Your task to perform on an android device: Go to Google maps Image 0: 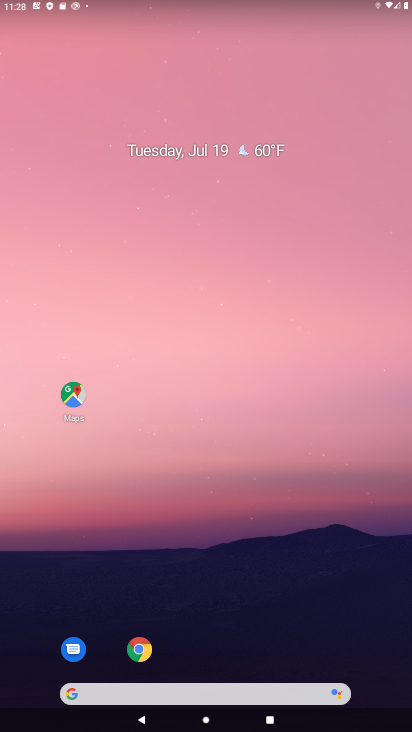
Step 0: click (70, 399)
Your task to perform on an android device: Go to Google maps Image 1: 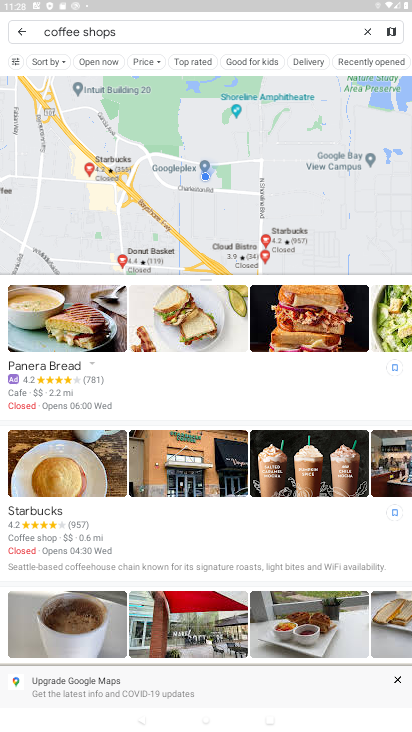
Step 1: task complete